Your task to perform on an android device: Go to Reddit.com Image 0: 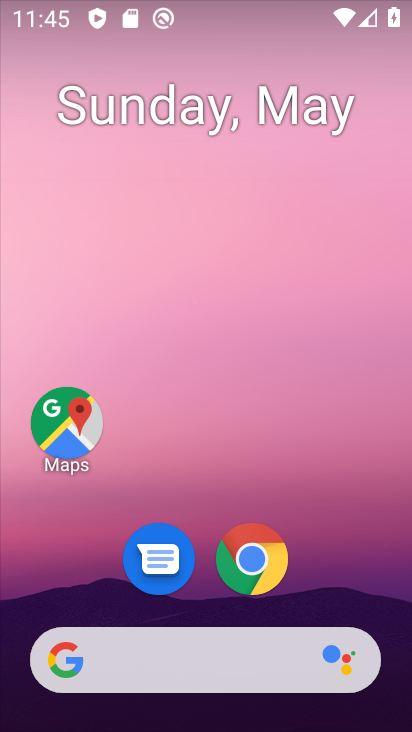
Step 0: drag from (222, 692) to (305, 164)
Your task to perform on an android device: Go to Reddit.com Image 1: 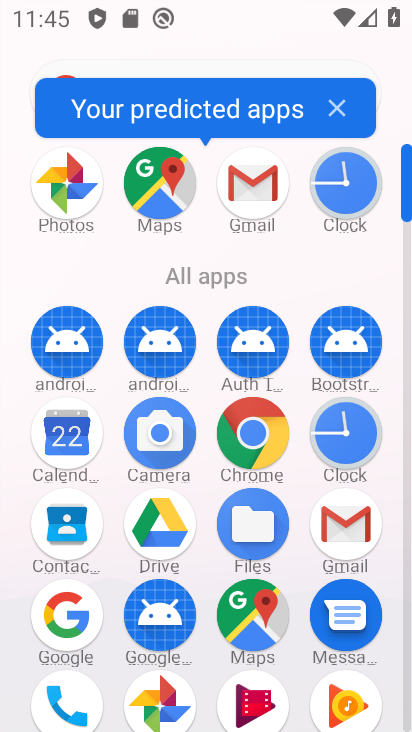
Step 1: click (254, 438)
Your task to perform on an android device: Go to Reddit.com Image 2: 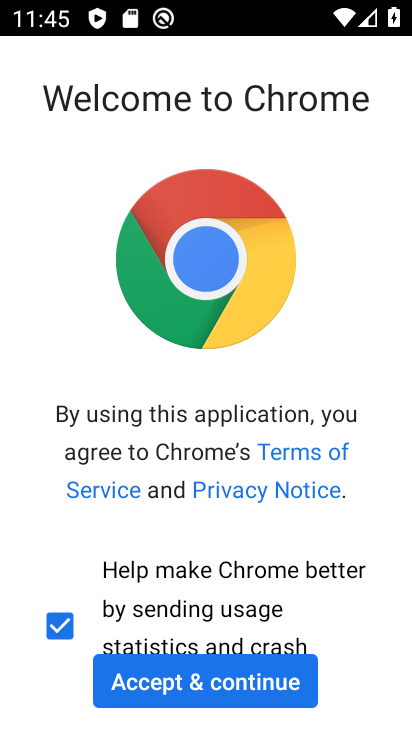
Step 2: drag from (295, 658) to (253, 658)
Your task to perform on an android device: Go to Reddit.com Image 3: 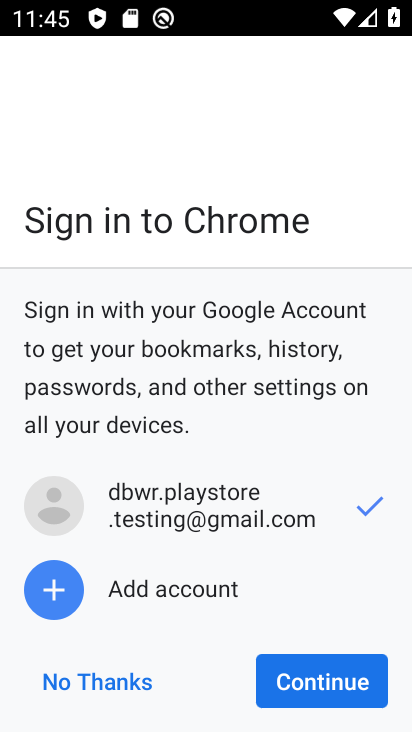
Step 3: click (105, 664)
Your task to perform on an android device: Go to Reddit.com Image 4: 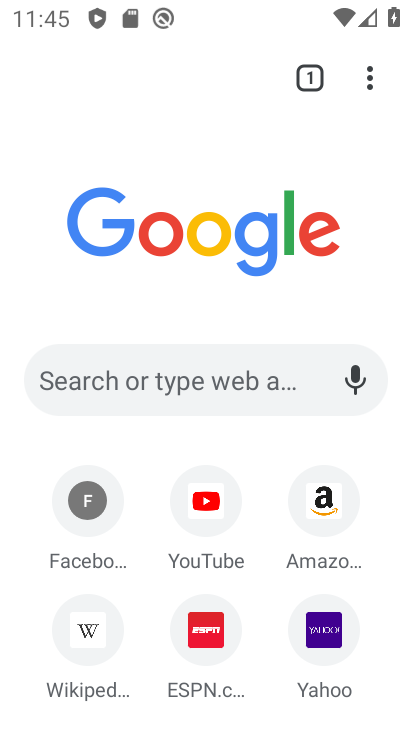
Step 4: click (256, 368)
Your task to perform on an android device: Go to Reddit.com Image 5: 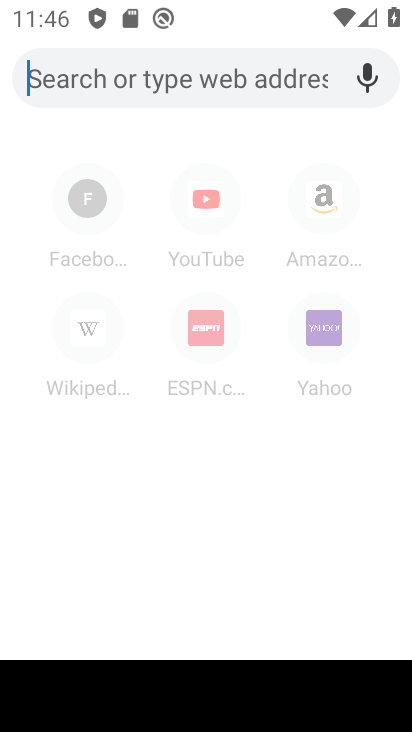
Step 5: type "reddit.com"
Your task to perform on an android device: Go to Reddit.com Image 6: 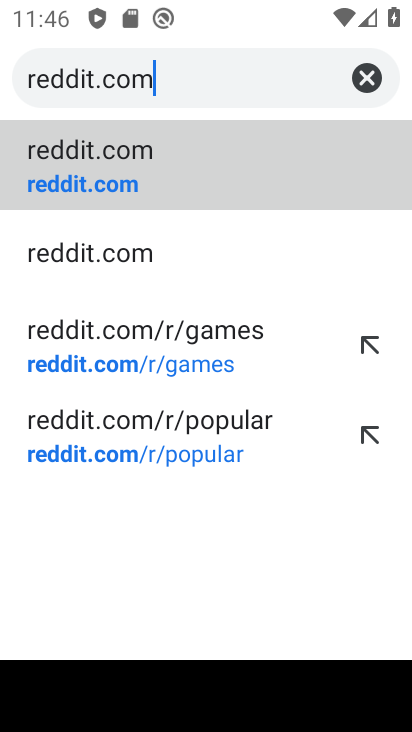
Step 6: click (93, 166)
Your task to perform on an android device: Go to Reddit.com Image 7: 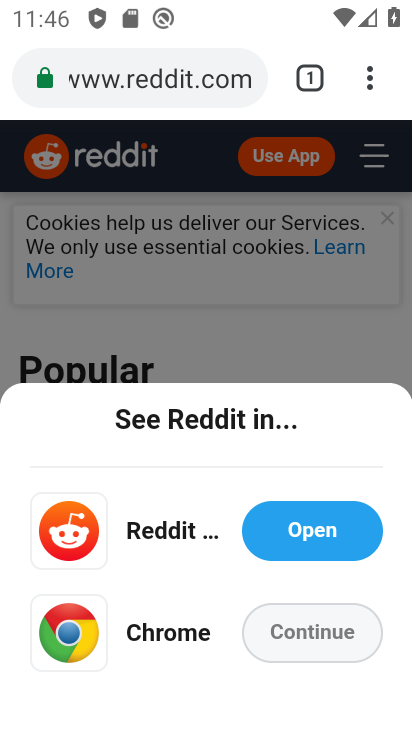
Step 7: task complete